Your task to perform on an android device: find photos in the google photos app Image 0: 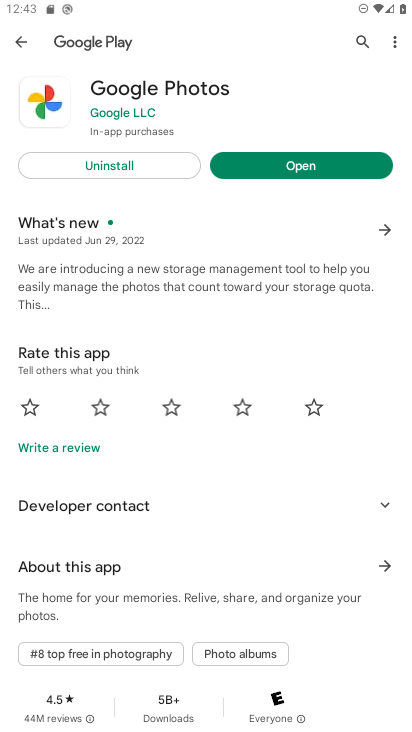
Step 0: click (323, 164)
Your task to perform on an android device: find photos in the google photos app Image 1: 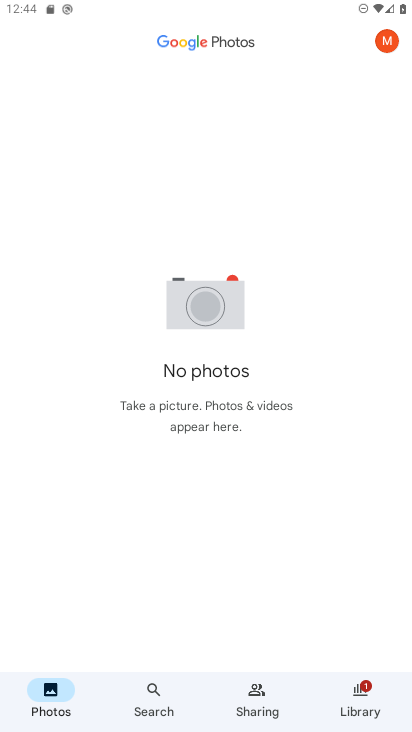
Step 1: click (163, 696)
Your task to perform on an android device: find photos in the google photos app Image 2: 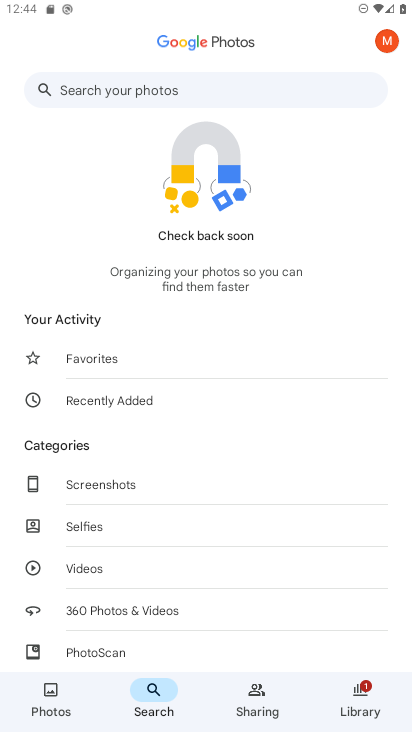
Step 2: task complete